Your task to perform on an android device: set default search engine in the chrome app Image 0: 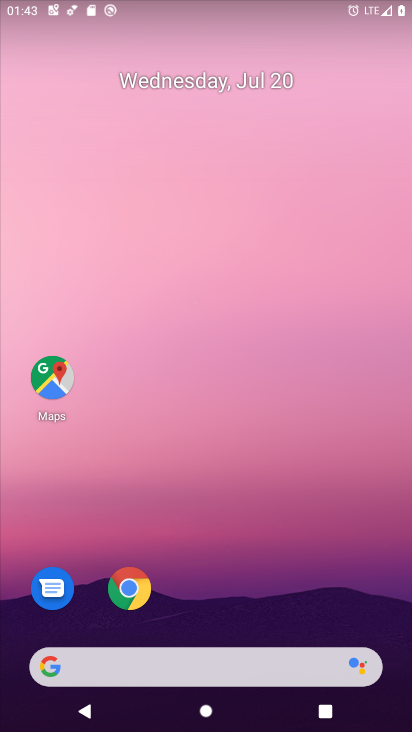
Step 0: drag from (229, 621) to (265, 165)
Your task to perform on an android device: set default search engine in the chrome app Image 1: 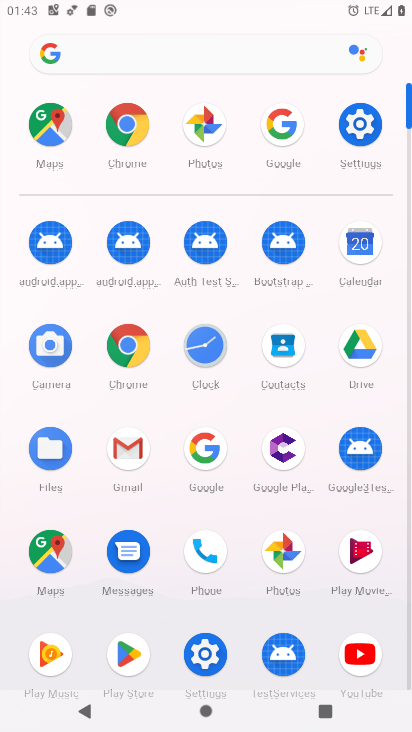
Step 1: click (130, 111)
Your task to perform on an android device: set default search engine in the chrome app Image 2: 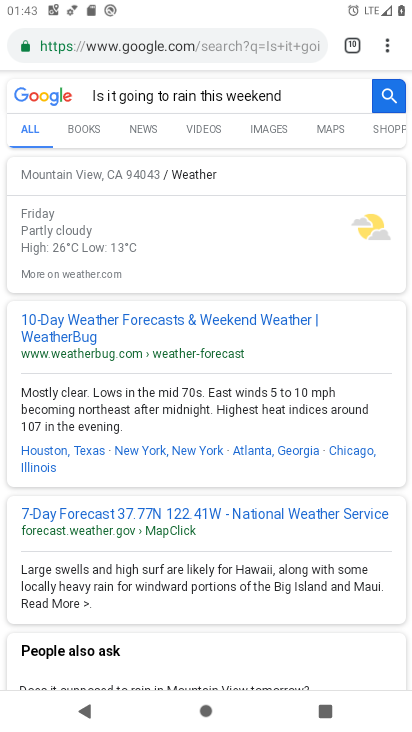
Step 2: click (393, 33)
Your task to perform on an android device: set default search engine in the chrome app Image 3: 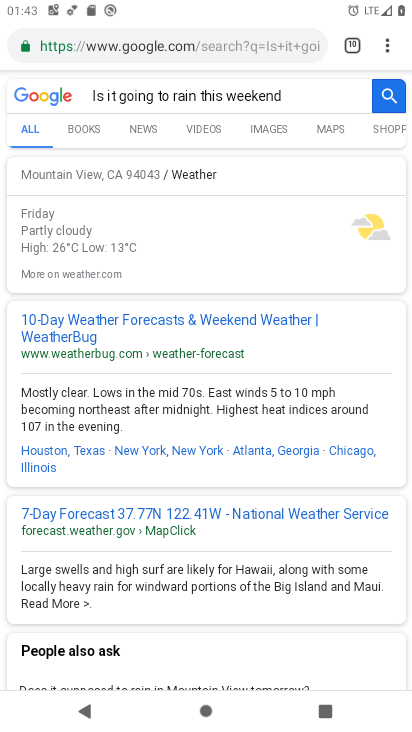
Step 3: click (387, 37)
Your task to perform on an android device: set default search engine in the chrome app Image 4: 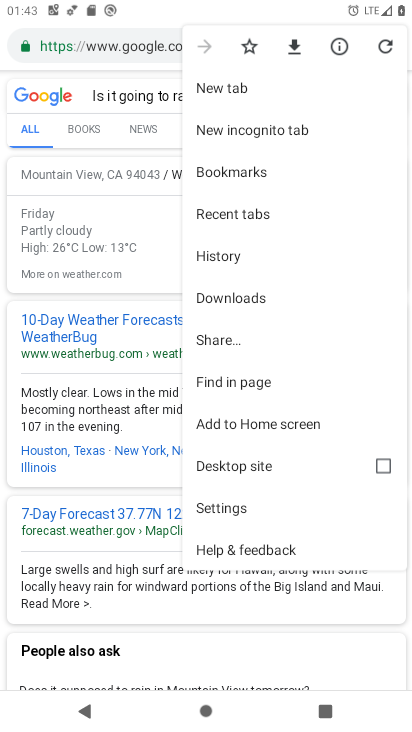
Step 4: click (238, 500)
Your task to perform on an android device: set default search engine in the chrome app Image 5: 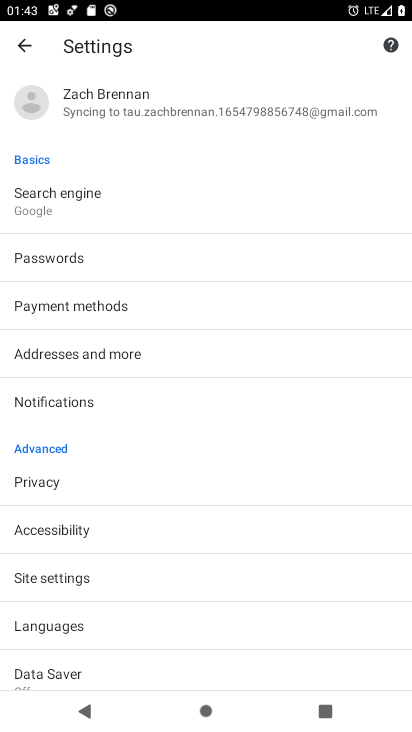
Step 5: click (76, 176)
Your task to perform on an android device: set default search engine in the chrome app Image 6: 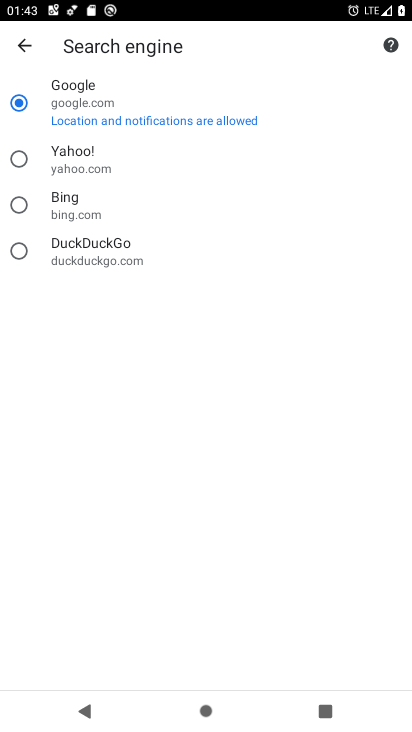
Step 6: click (90, 168)
Your task to perform on an android device: set default search engine in the chrome app Image 7: 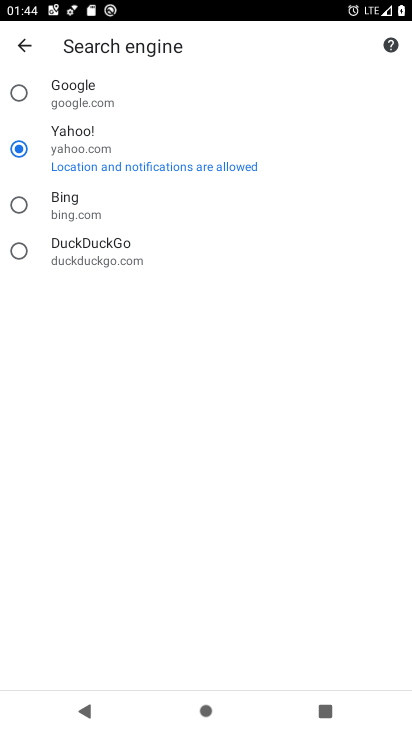
Step 7: task complete